Your task to perform on an android device: add a label to a message in the gmail app Image 0: 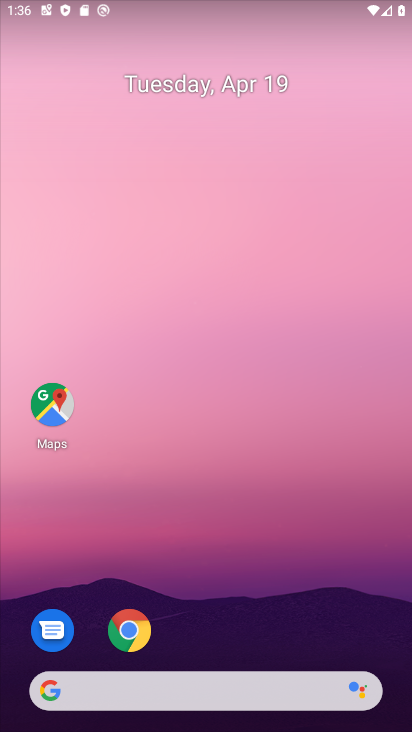
Step 0: drag from (223, 581) to (179, 180)
Your task to perform on an android device: add a label to a message in the gmail app Image 1: 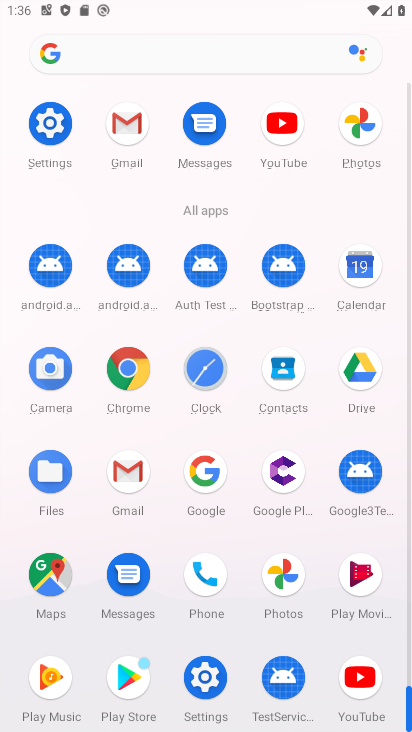
Step 1: click (123, 129)
Your task to perform on an android device: add a label to a message in the gmail app Image 2: 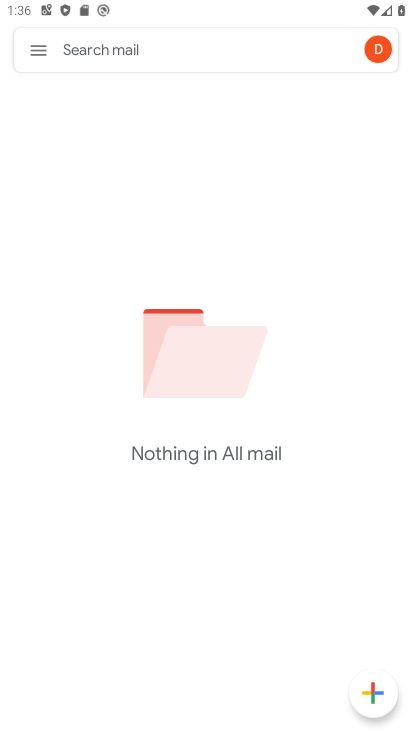
Step 2: click (38, 50)
Your task to perform on an android device: add a label to a message in the gmail app Image 3: 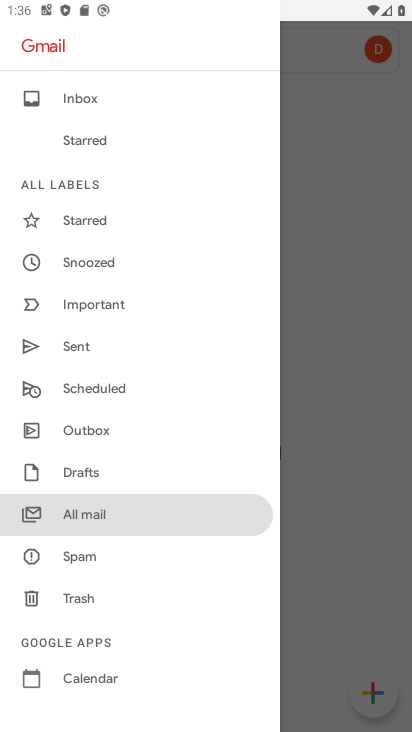
Step 3: click (105, 97)
Your task to perform on an android device: add a label to a message in the gmail app Image 4: 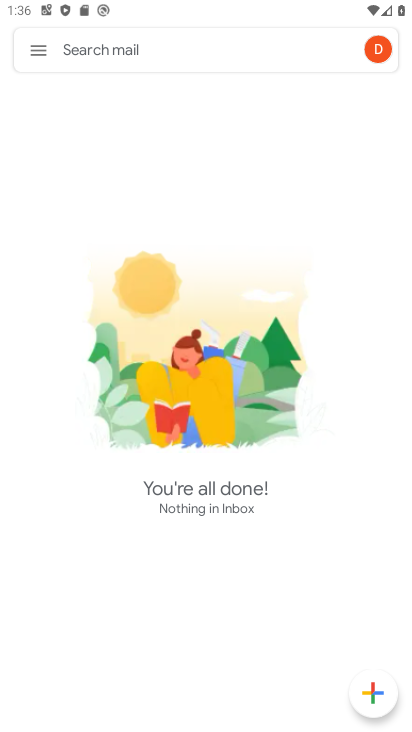
Step 4: task complete